Your task to perform on an android device: Go to accessibility settings Image 0: 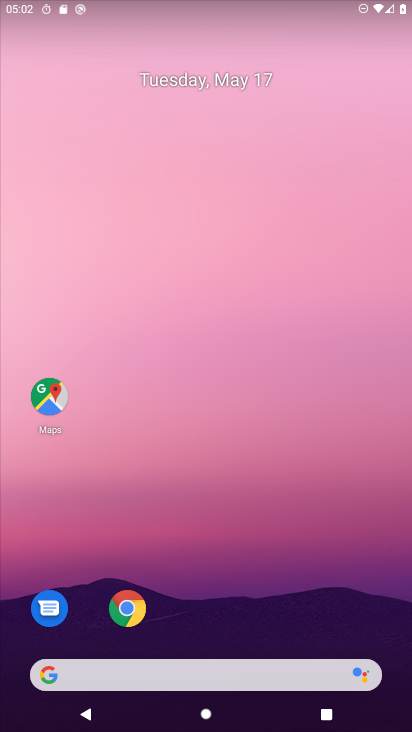
Step 0: drag from (195, 631) to (195, 280)
Your task to perform on an android device: Go to accessibility settings Image 1: 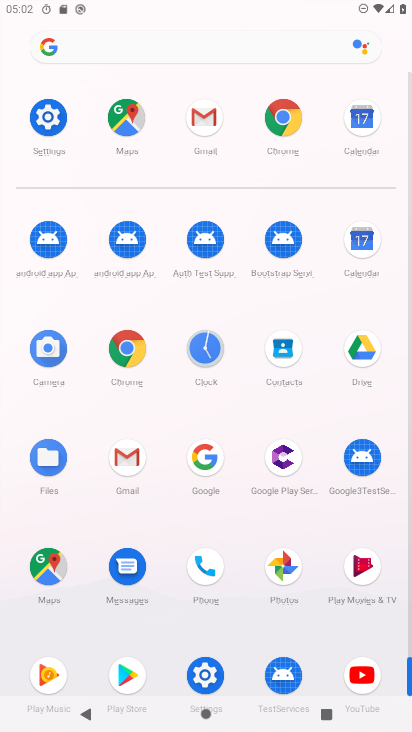
Step 1: click (55, 114)
Your task to perform on an android device: Go to accessibility settings Image 2: 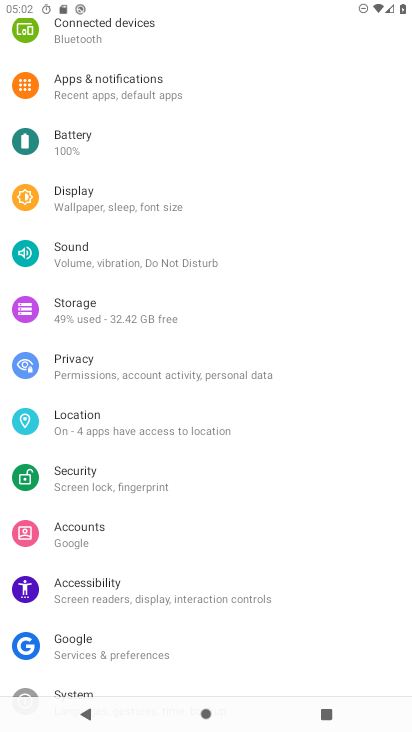
Step 2: click (128, 600)
Your task to perform on an android device: Go to accessibility settings Image 3: 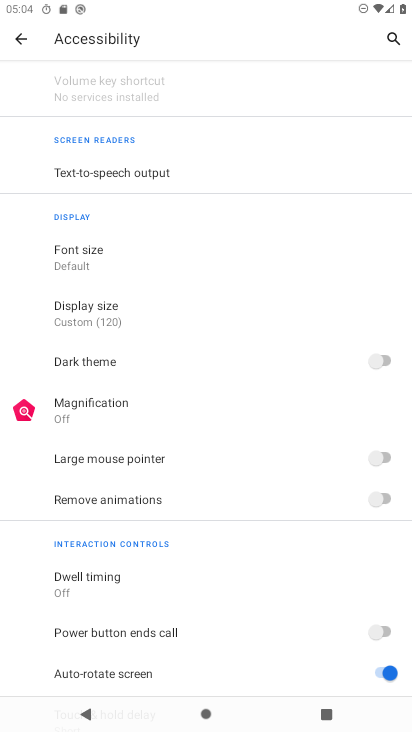
Step 3: task complete